Your task to perform on an android device: Go to battery settings Image 0: 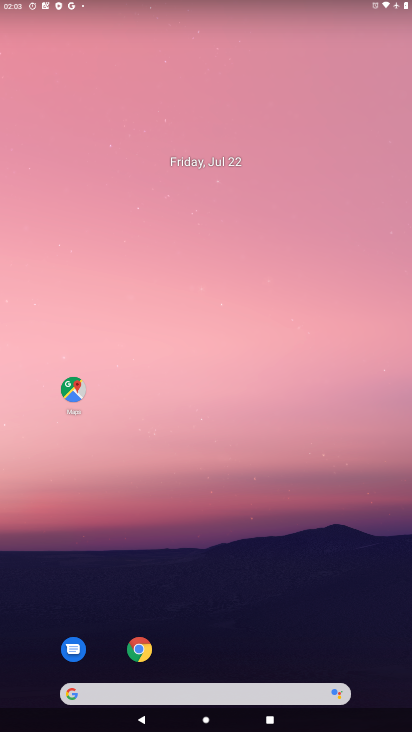
Step 0: click (299, 311)
Your task to perform on an android device: Go to battery settings Image 1: 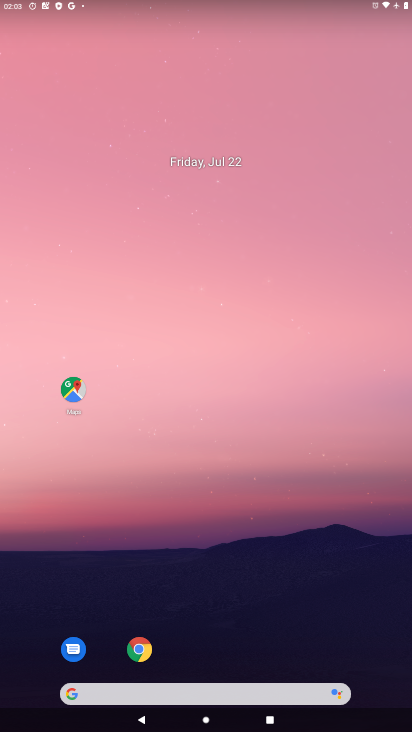
Step 1: drag from (295, 450) to (298, 13)
Your task to perform on an android device: Go to battery settings Image 2: 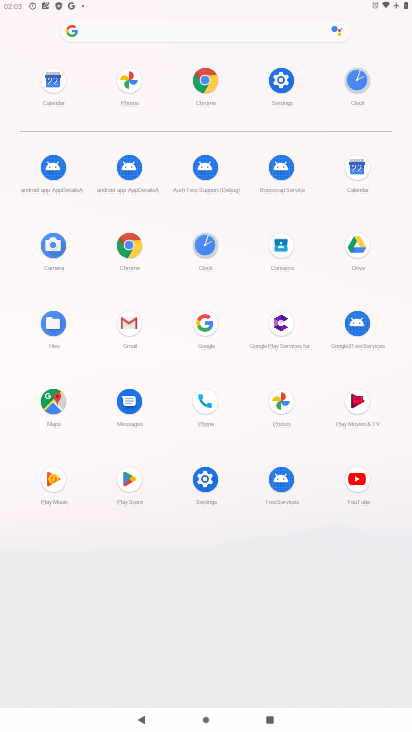
Step 2: click (288, 79)
Your task to perform on an android device: Go to battery settings Image 3: 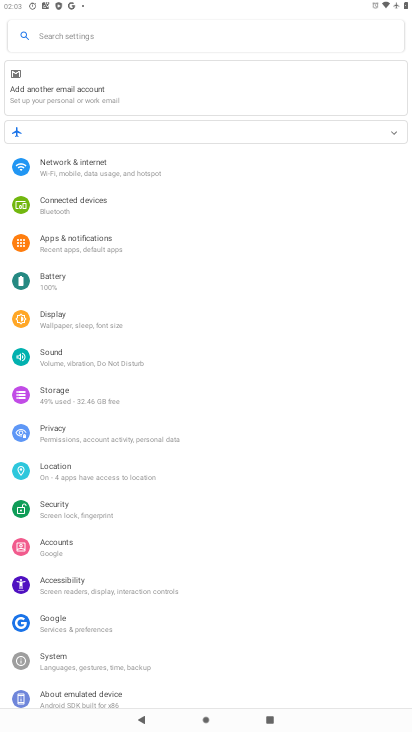
Step 3: drag from (140, 673) to (169, 298)
Your task to perform on an android device: Go to battery settings Image 4: 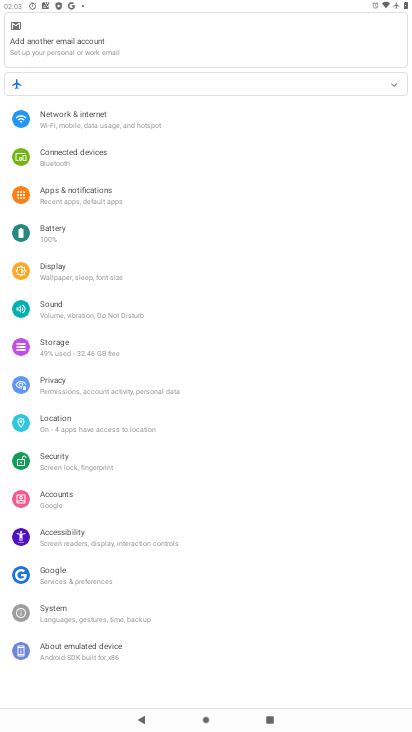
Step 4: click (50, 228)
Your task to perform on an android device: Go to battery settings Image 5: 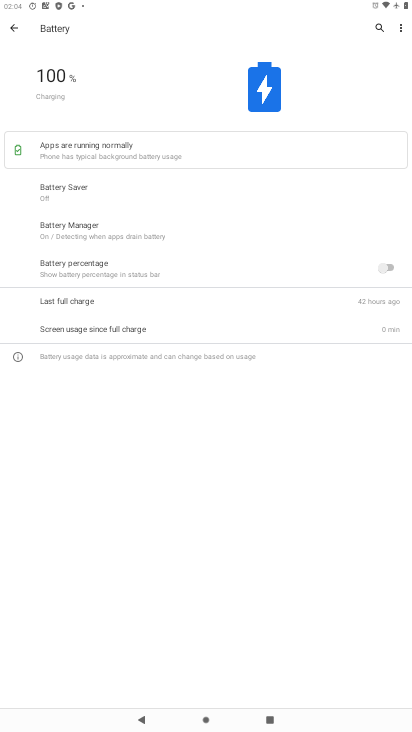
Step 5: task complete